Your task to perform on an android device: Go to accessibility settings Image 0: 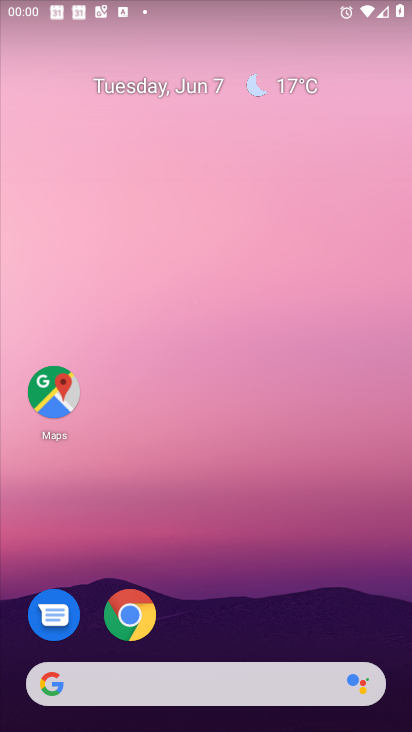
Step 0: drag from (368, 425) to (375, 296)
Your task to perform on an android device: Go to accessibility settings Image 1: 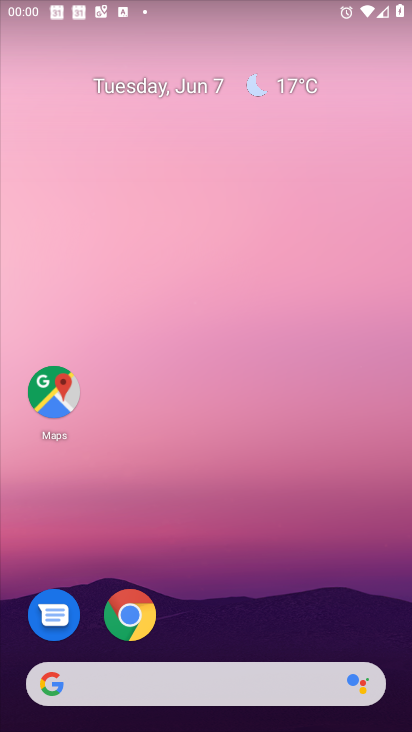
Step 1: drag from (389, 604) to (373, 151)
Your task to perform on an android device: Go to accessibility settings Image 2: 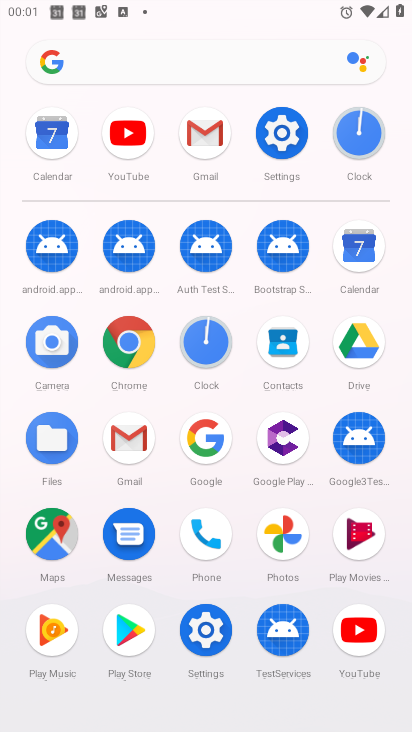
Step 2: click (296, 141)
Your task to perform on an android device: Go to accessibility settings Image 3: 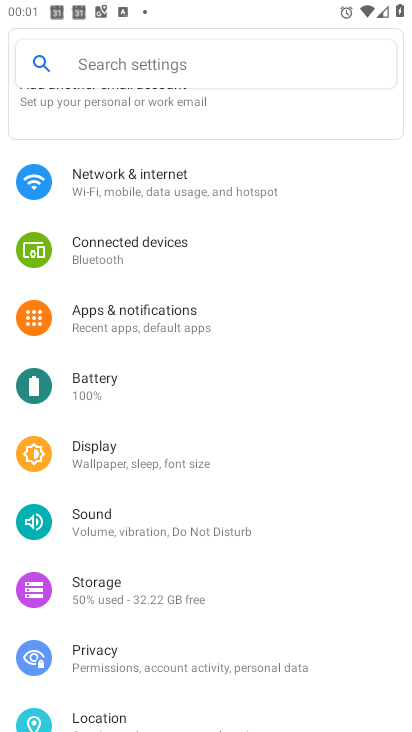
Step 3: drag from (343, 643) to (342, 193)
Your task to perform on an android device: Go to accessibility settings Image 4: 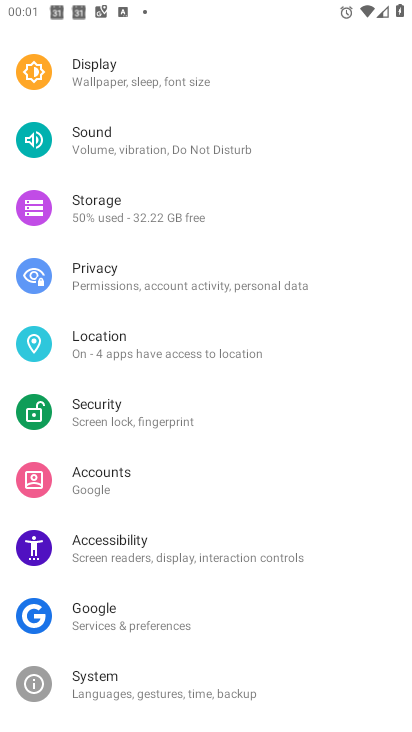
Step 4: click (117, 538)
Your task to perform on an android device: Go to accessibility settings Image 5: 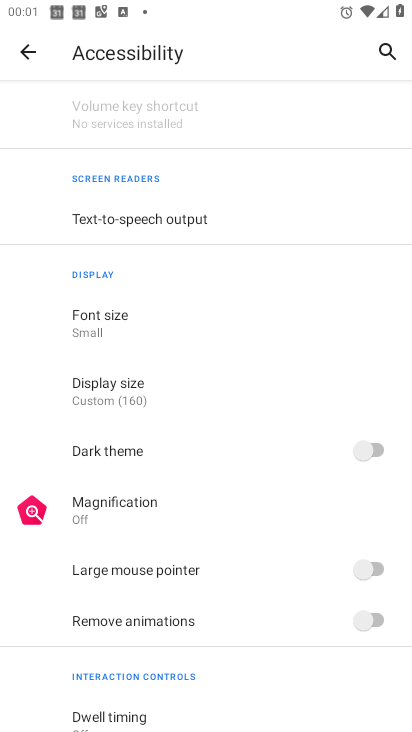
Step 5: task complete